Your task to perform on an android device: Search for Mexican restaurants on Maps Image 0: 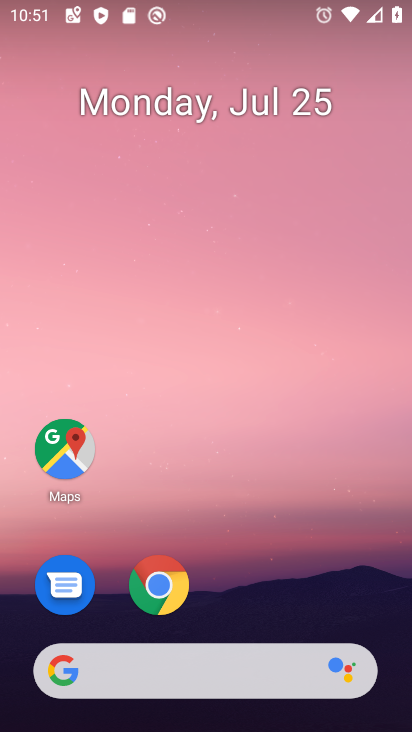
Step 0: drag from (246, 639) to (132, 94)
Your task to perform on an android device: Search for Mexican restaurants on Maps Image 1: 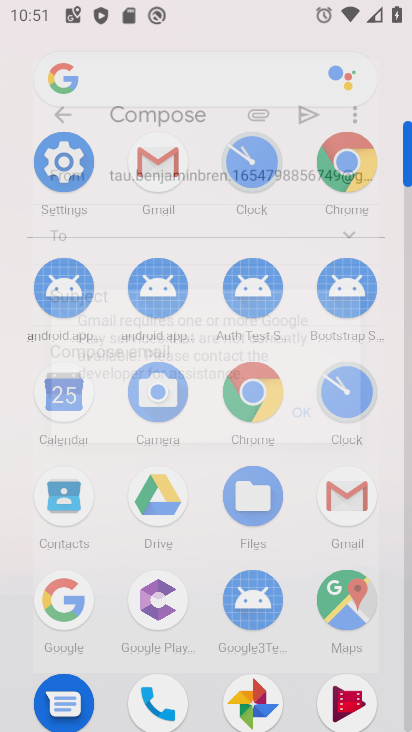
Step 1: click (339, 589)
Your task to perform on an android device: Search for Mexican restaurants on Maps Image 2: 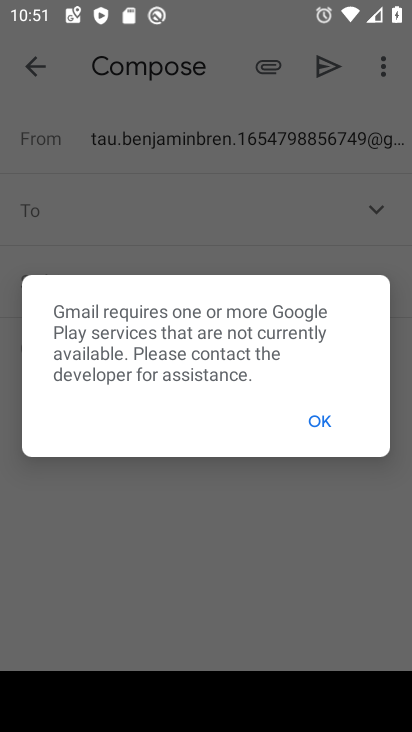
Step 2: click (317, 421)
Your task to perform on an android device: Search for Mexican restaurants on Maps Image 3: 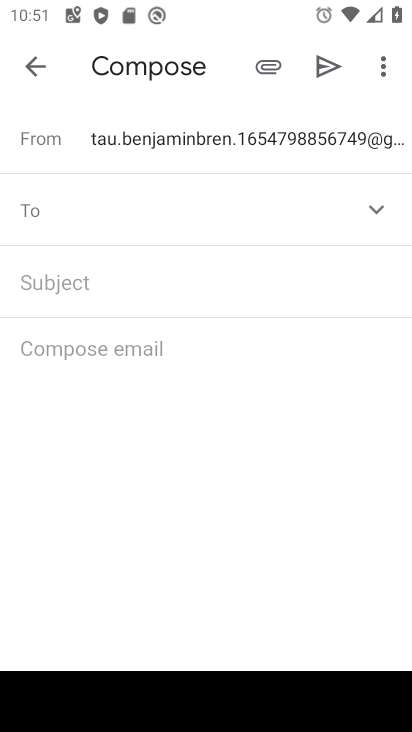
Step 3: press home button
Your task to perform on an android device: Search for Mexican restaurants on Maps Image 4: 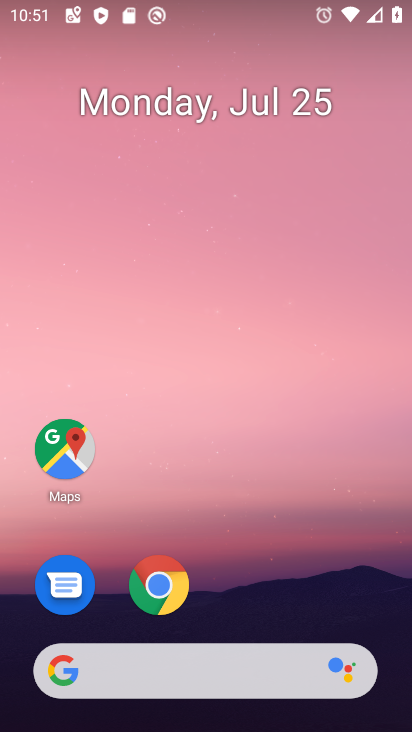
Step 4: drag from (182, 634) to (0, 374)
Your task to perform on an android device: Search for Mexican restaurants on Maps Image 5: 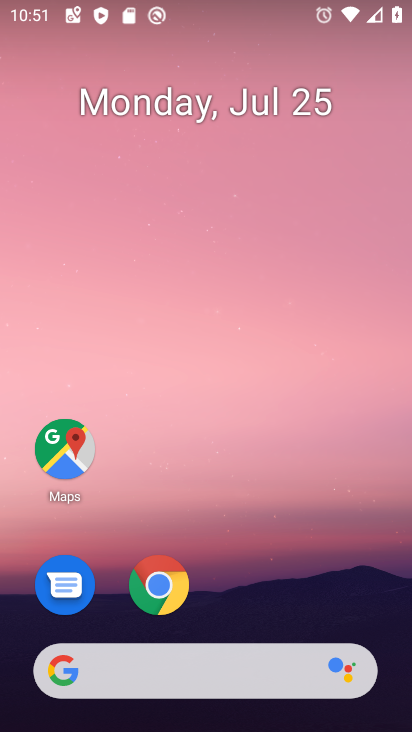
Step 5: click (338, 614)
Your task to perform on an android device: Search for Mexican restaurants on Maps Image 6: 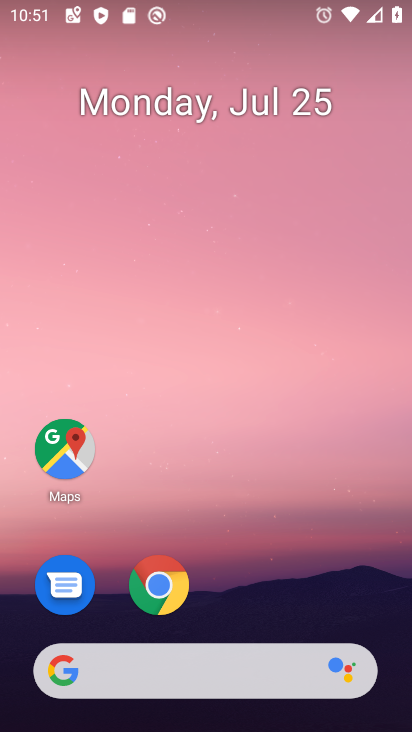
Step 6: drag from (338, 614) to (302, 129)
Your task to perform on an android device: Search for Mexican restaurants on Maps Image 7: 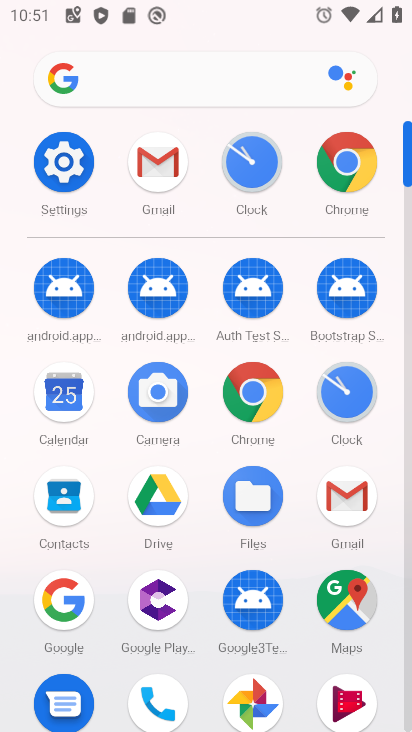
Step 7: click (347, 590)
Your task to perform on an android device: Search for Mexican restaurants on Maps Image 8: 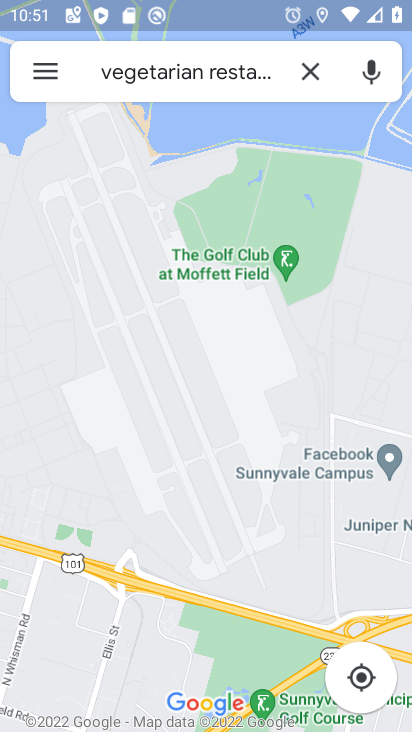
Step 8: click (299, 68)
Your task to perform on an android device: Search for Mexican restaurants on Maps Image 9: 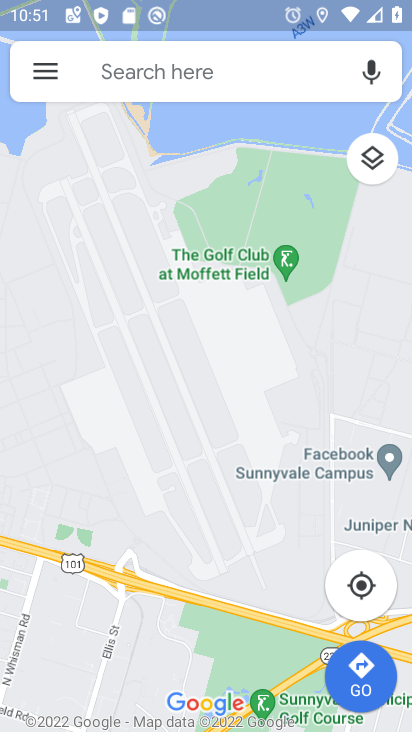
Step 9: click (204, 86)
Your task to perform on an android device: Search for Mexican restaurants on Maps Image 10: 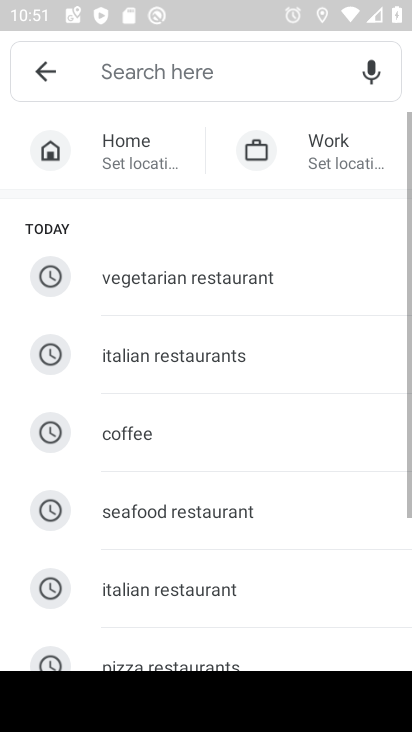
Step 10: drag from (253, 587) to (182, 137)
Your task to perform on an android device: Search for Mexican restaurants on Maps Image 11: 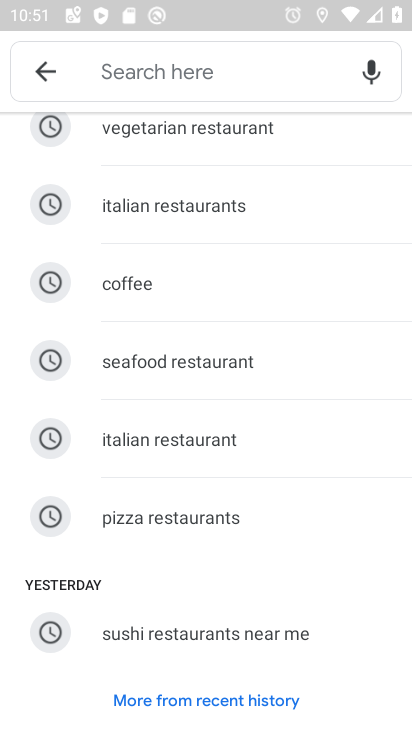
Step 11: click (218, 688)
Your task to perform on an android device: Search for Mexican restaurants on Maps Image 12: 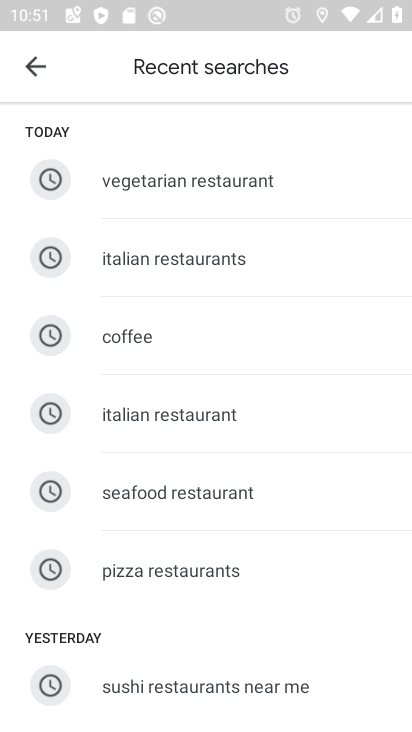
Step 12: drag from (223, 687) to (140, 122)
Your task to perform on an android device: Search for Mexican restaurants on Maps Image 13: 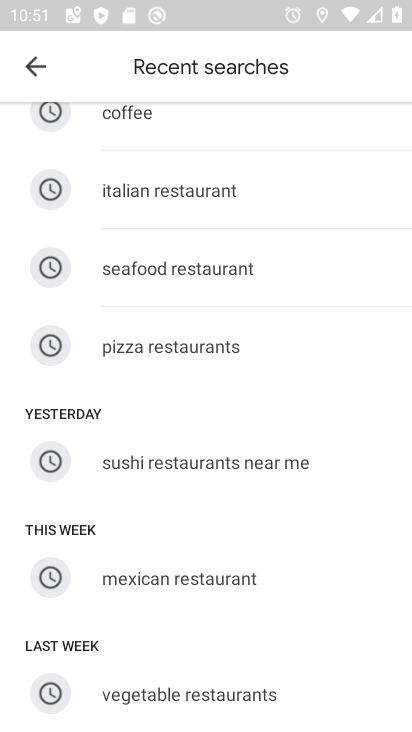
Step 13: click (173, 575)
Your task to perform on an android device: Search for Mexican restaurants on Maps Image 14: 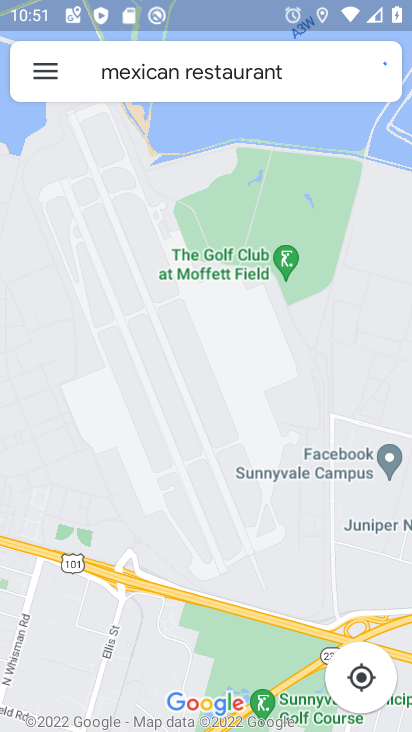
Step 14: task complete